Your task to perform on an android device: Open Chrome and go to the settings page Image 0: 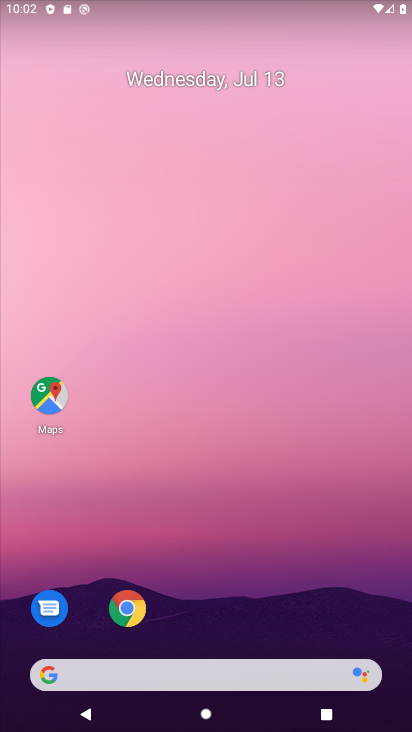
Step 0: drag from (228, 420) to (290, 90)
Your task to perform on an android device: Open Chrome and go to the settings page Image 1: 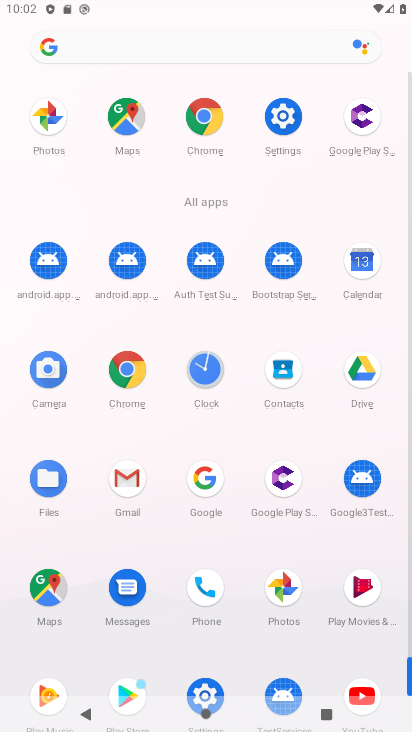
Step 1: click (129, 373)
Your task to perform on an android device: Open Chrome and go to the settings page Image 2: 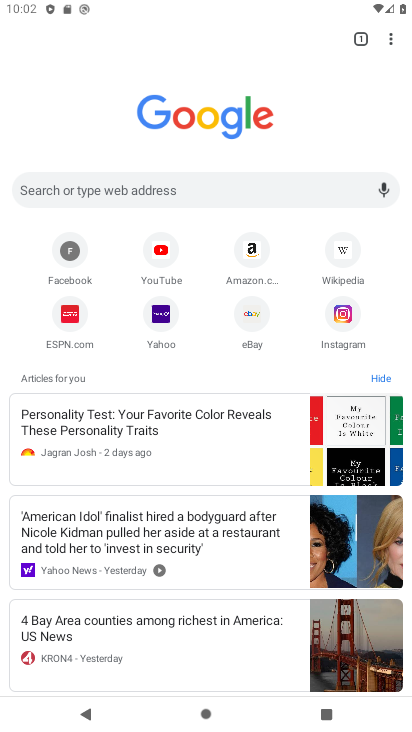
Step 2: task complete